Your task to perform on an android device: Open Google Chrome and open the bookmarks view Image 0: 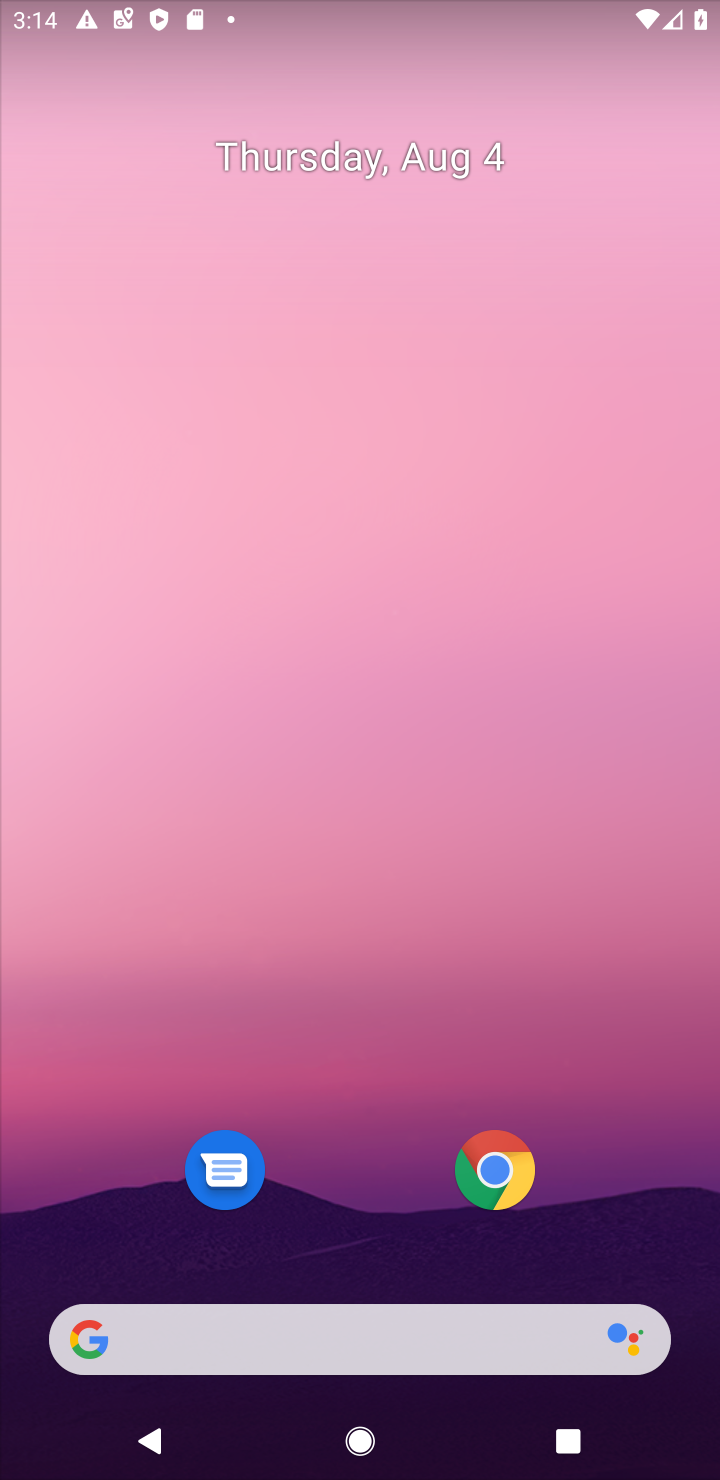
Step 0: click (497, 1167)
Your task to perform on an android device: Open Google Chrome and open the bookmarks view Image 1: 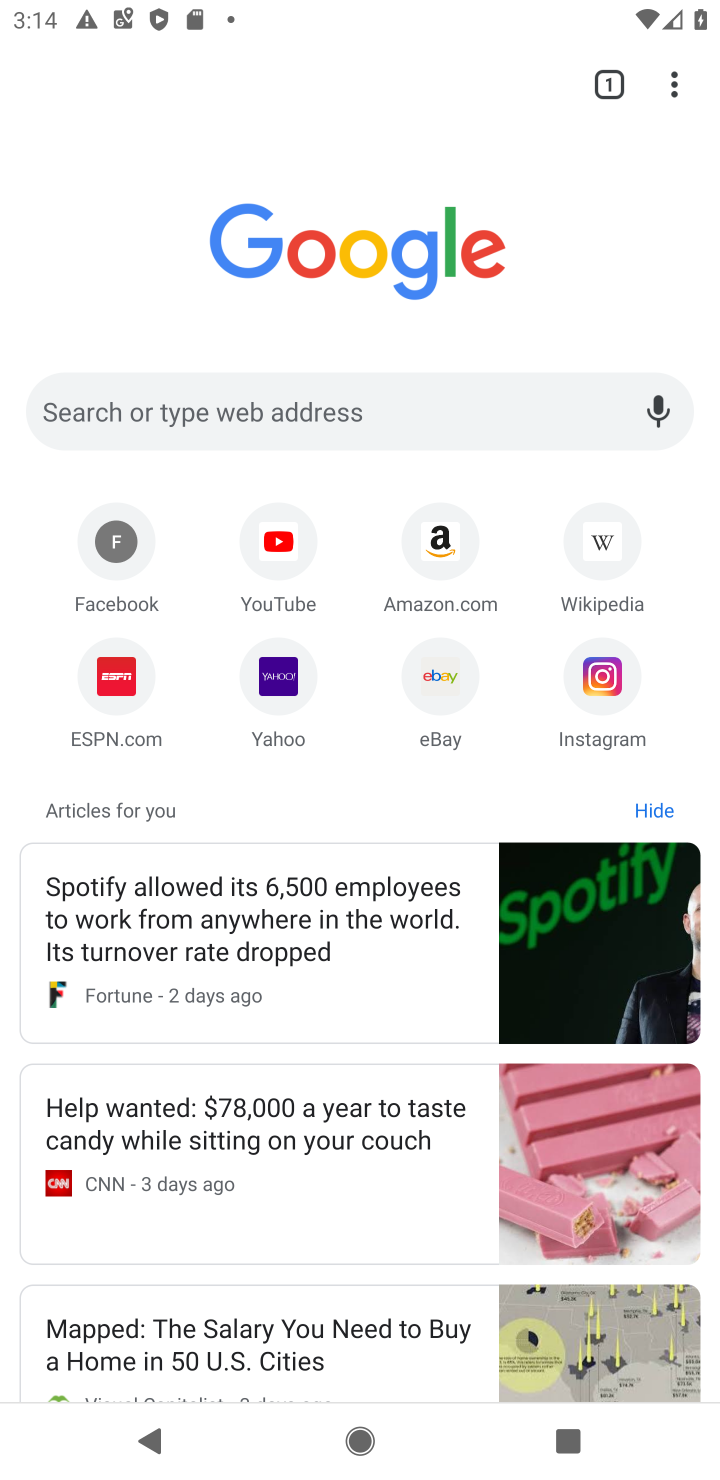
Step 1: click (665, 94)
Your task to perform on an android device: Open Google Chrome and open the bookmarks view Image 2: 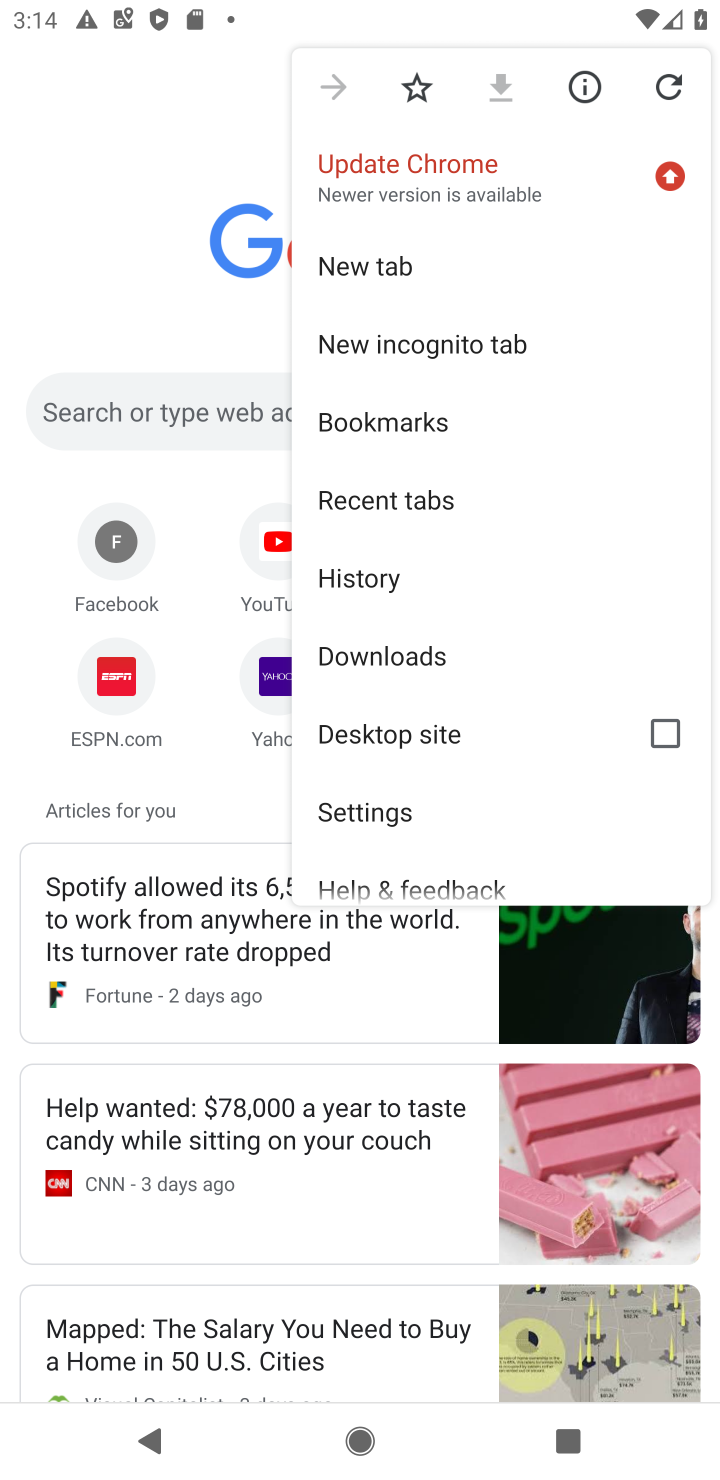
Step 2: click (376, 426)
Your task to perform on an android device: Open Google Chrome and open the bookmarks view Image 3: 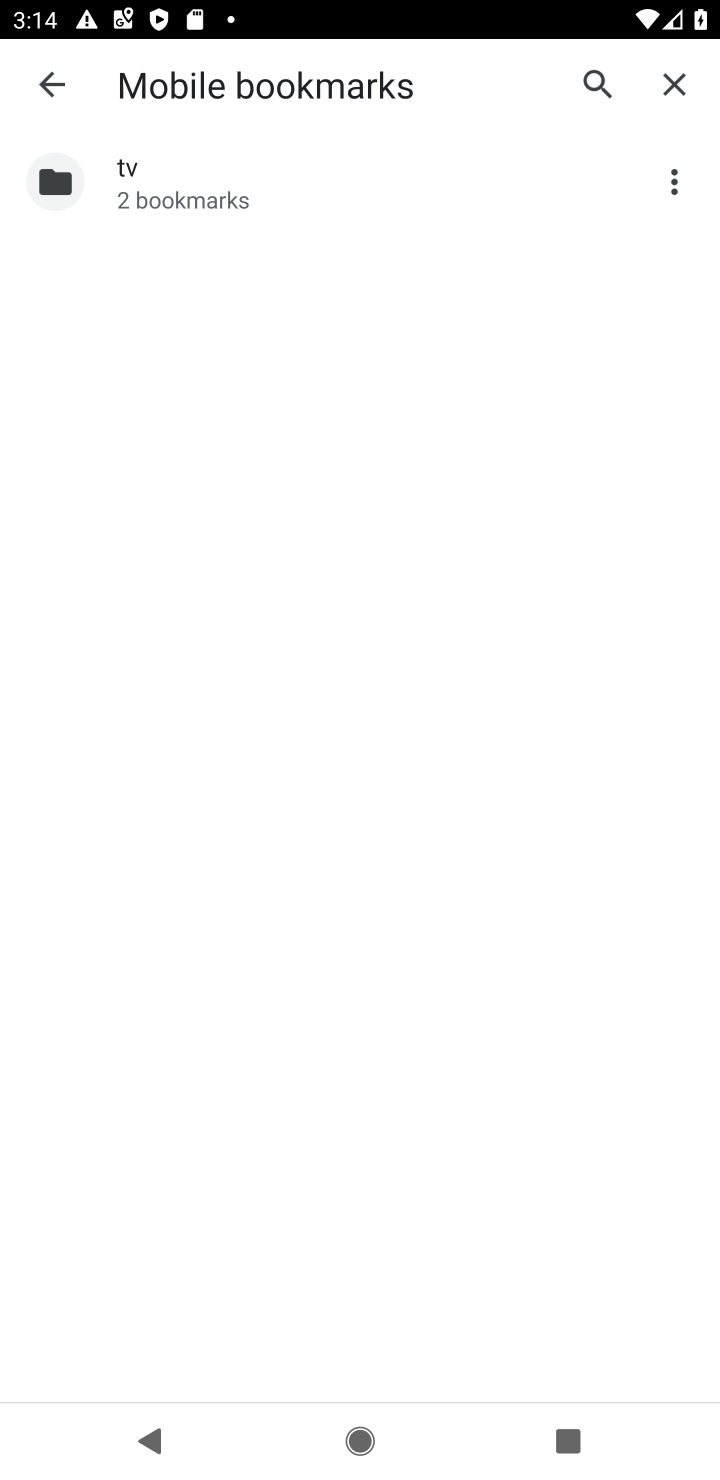
Step 3: task complete